Your task to perform on an android device: open a new tab in the chrome app Image 0: 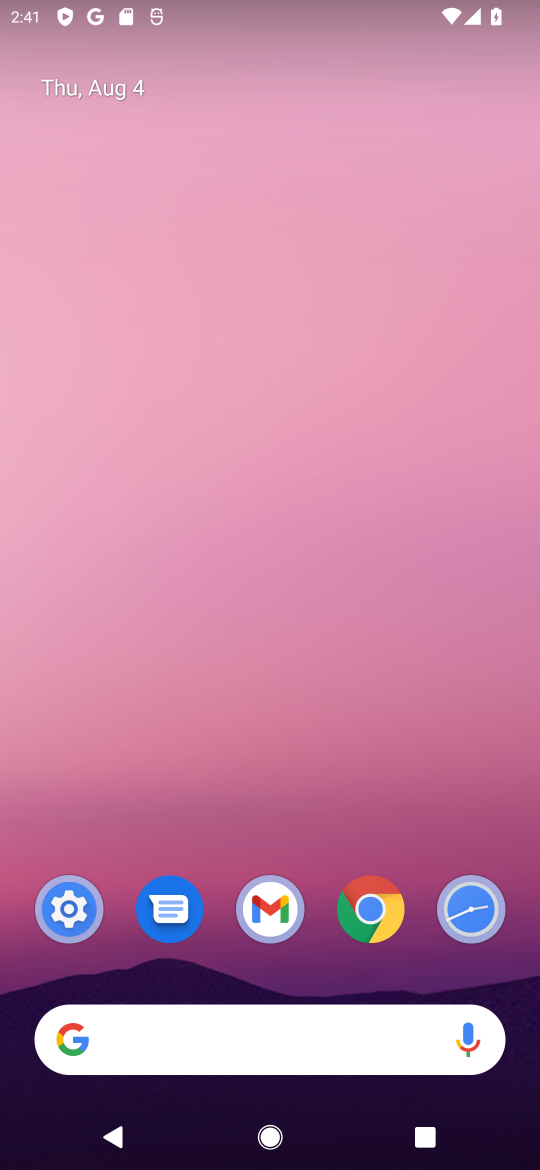
Step 0: click (371, 908)
Your task to perform on an android device: open a new tab in the chrome app Image 1: 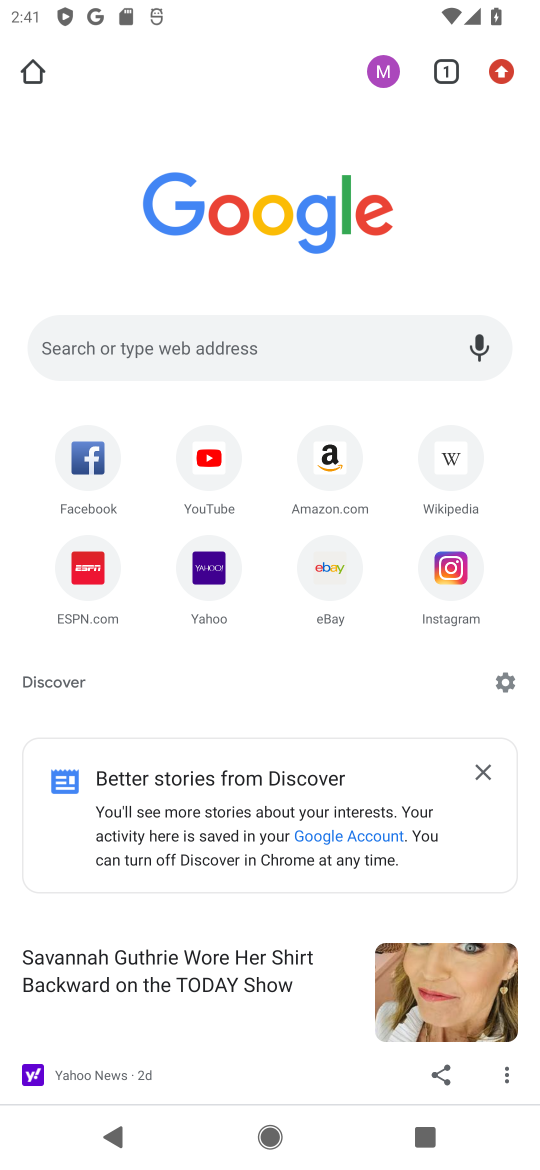
Step 1: task complete